Your task to perform on an android device: Open Maps and search for coffee Image 0: 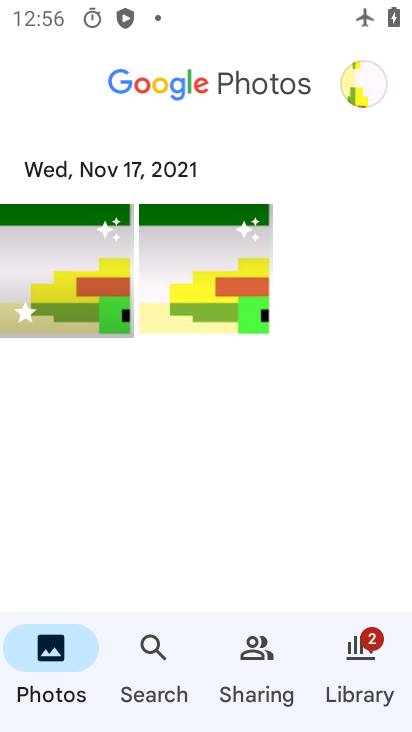
Step 0: press home button
Your task to perform on an android device: Open Maps and search for coffee Image 1: 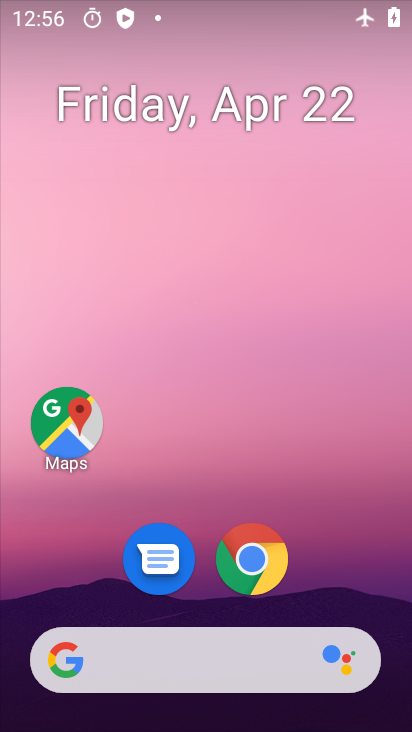
Step 1: drag from (364, 590) to (389, 109)
Your task to perform on an android device: Open Maps and search for coffee Image 2: 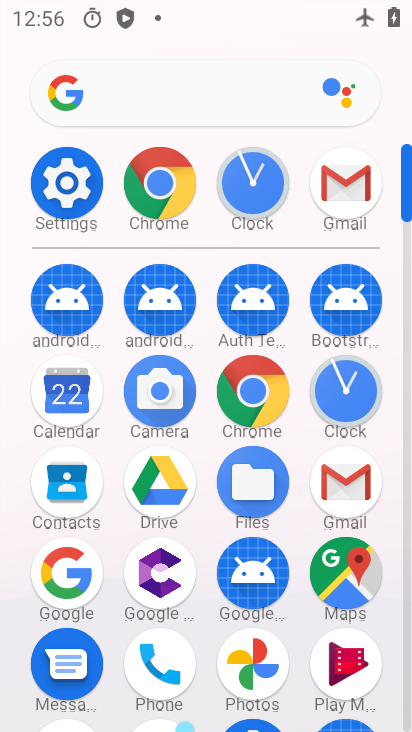
Step 2: click (348, 578)
Your task to perform on an android device: Open Maps and search for coffee Image 3: 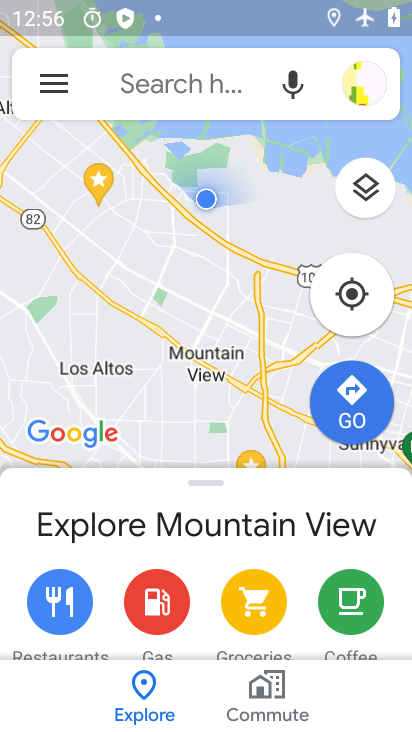
Step 3: click (238, 88)
Your task to perform on an android device: Open Maps and search for coffee Image 4: 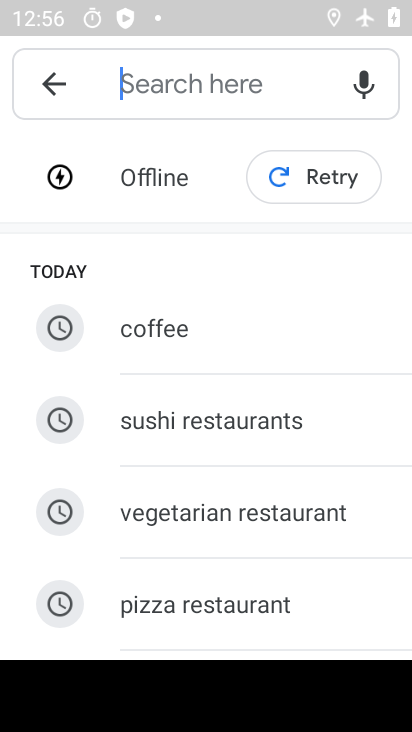
Step 4: type "coffee"
Your task to perform on an android device: Open Maps and search for coffee Image 5: 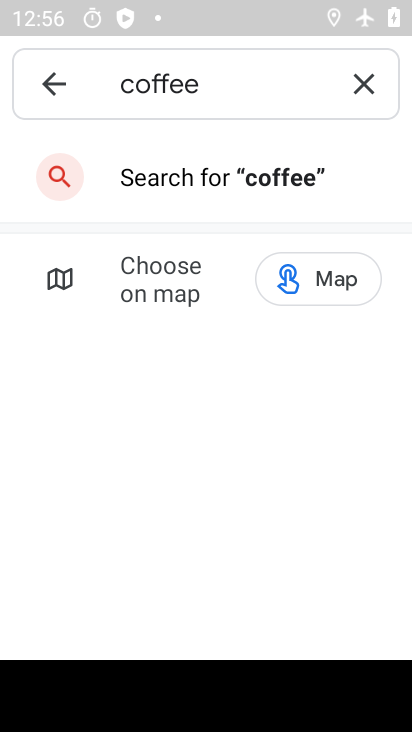
Step 5: task complete